Your task to perform on an android device: Go to privacy settings Image 0: 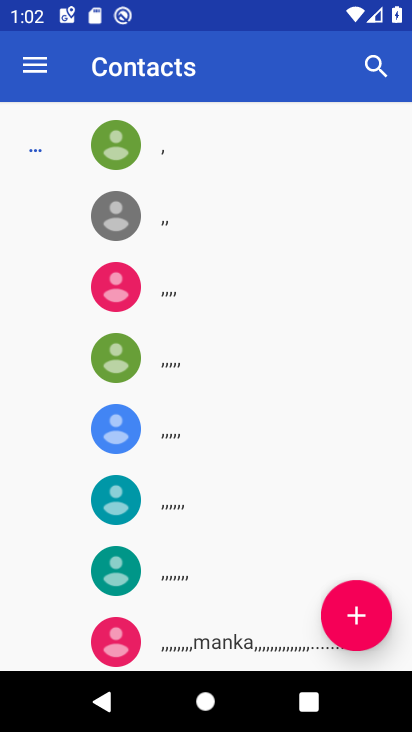
Step 0: press home button
Your task to perform on an android device: Go to privacy settings Image 1: 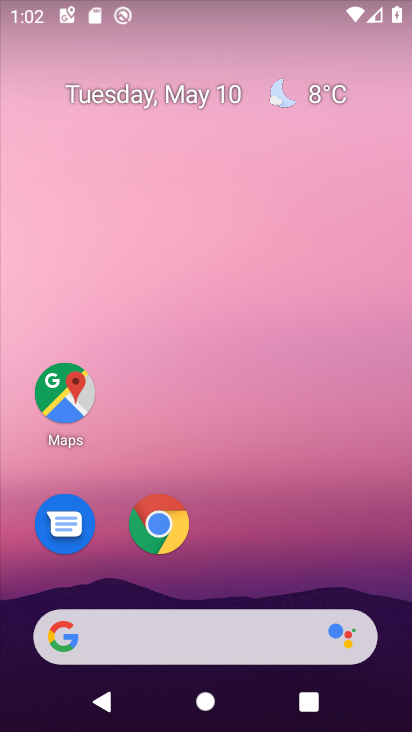
Step 1: drag from (305, 565) to (324, 52)
Your task to perform on an android device: Go to privacy settings Image 2: 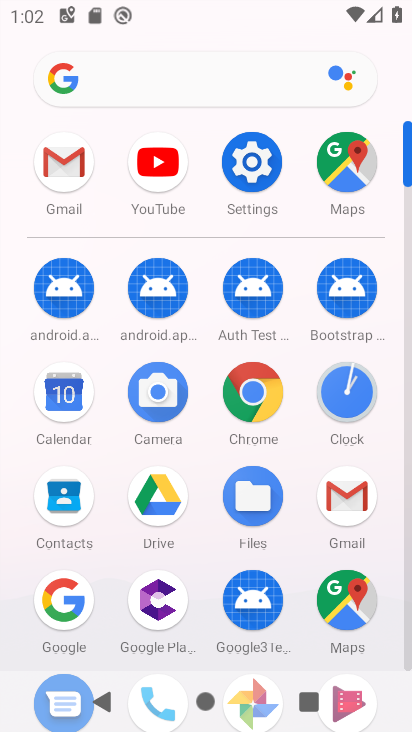
Step 2: click (249, 152)
Your task to perform on an android device: Go to privacy settings Image 3: 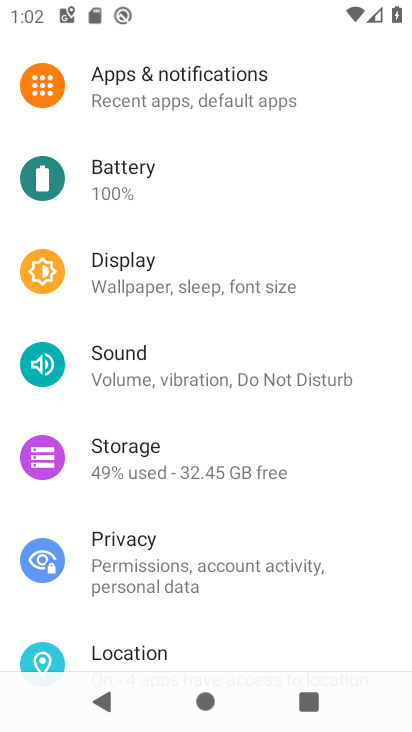
Step 3: click (184, 558)
Your task to perform on an android device: Go to privacy settings Image 4: 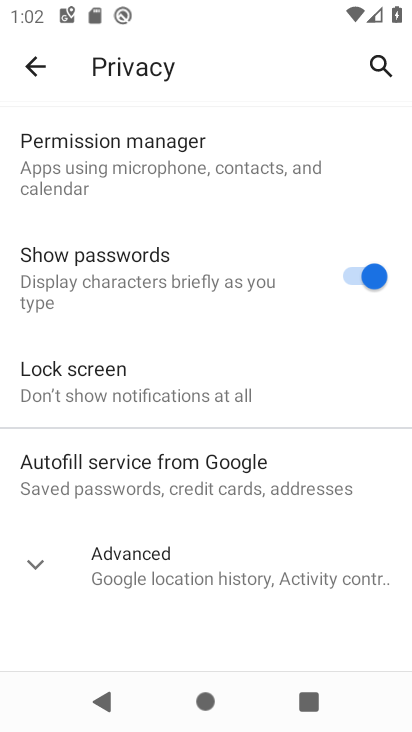
Step 4: task complete